Your task to perform on an android device: turn off notifications settings in the gmail app Image 0: 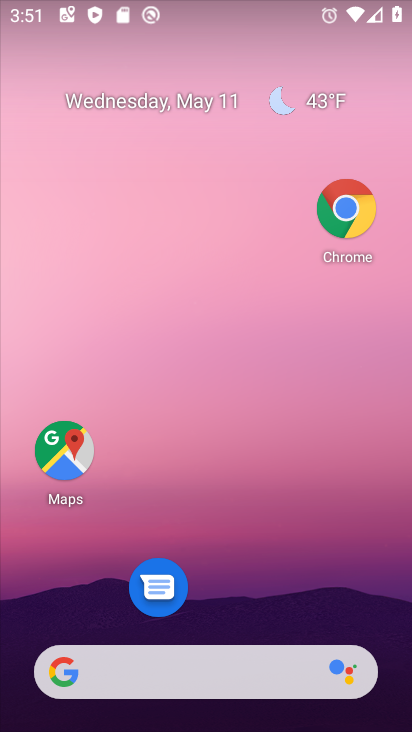
Step 0: task impossible